Your task to perform on an android device: Go to Amazon Image 0: 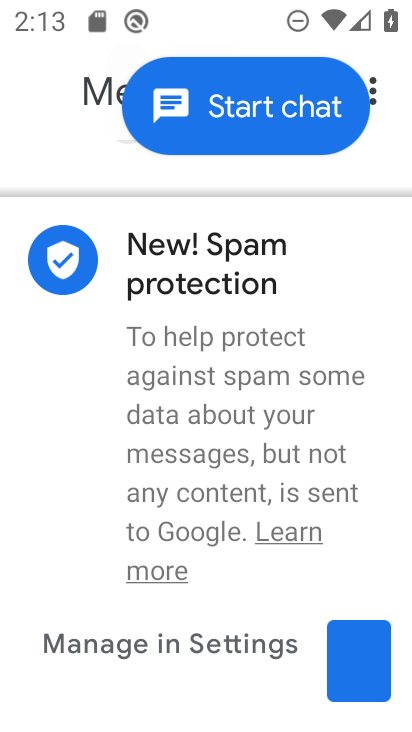
Step 0: press home button
Your task to perform on an android device: Go to Amazon Image 1: 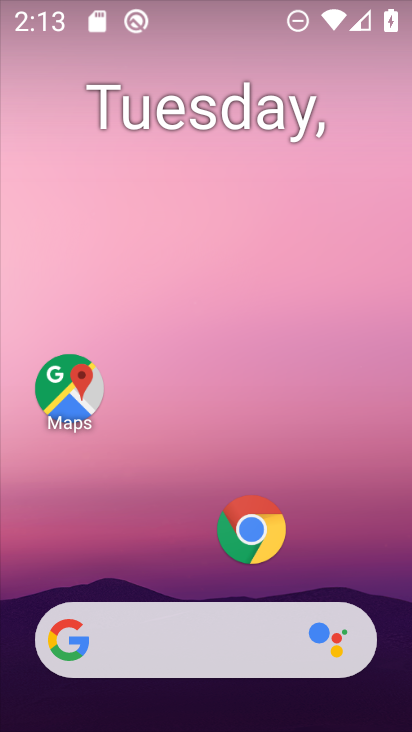
Step 1: drag from (289, 688) to (305, 285)
Your task to perform on an android device: Go to Amazon Image 2: 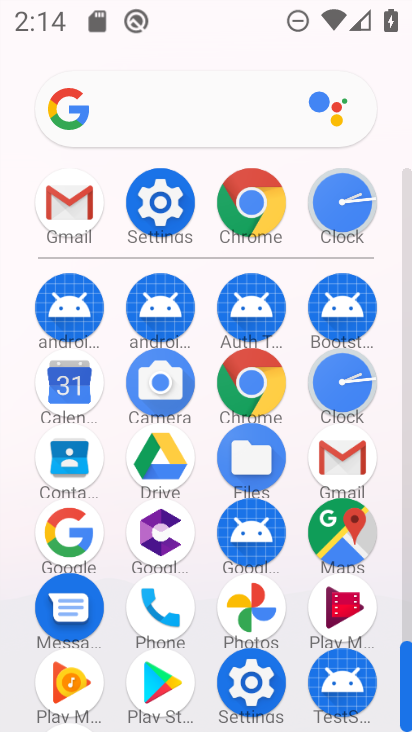
Step 2: click (231, 386)
Your task to perform on an android device: Go to Amazon Image 3: 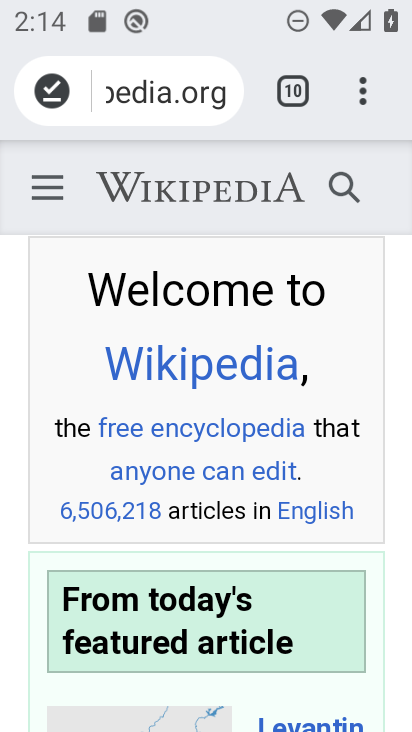
Step 3: click (365, 97)
Your task to perform on an android device: Go to Amazon Image 4: 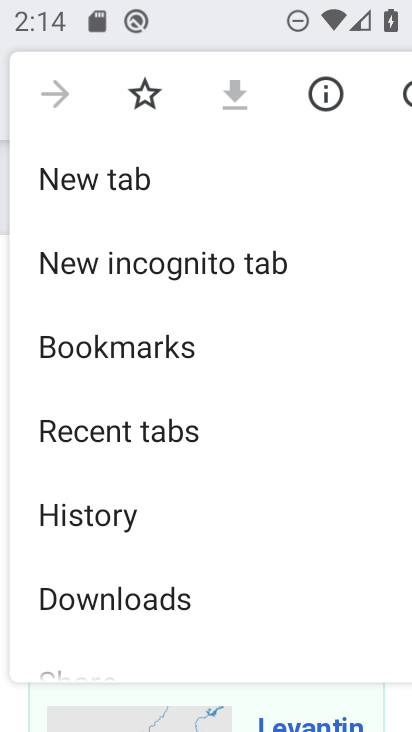
Step 4: click (104, 169)
Your task to perform on an android device: Go to Amazon Image 5: 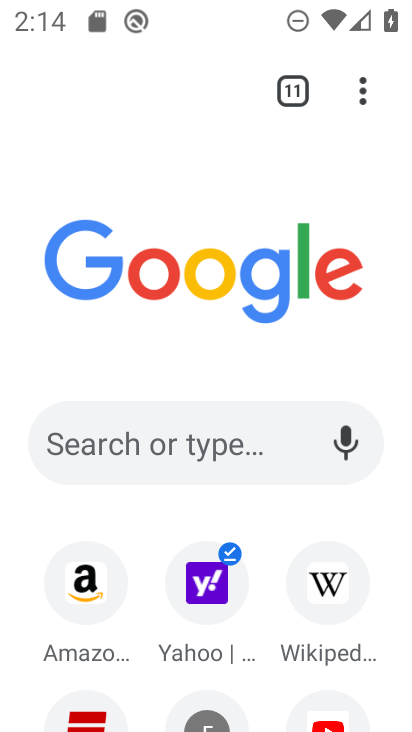
Step 5: click (101, 572)
Your task to perform on an android device: Go to Amazon Image 6: 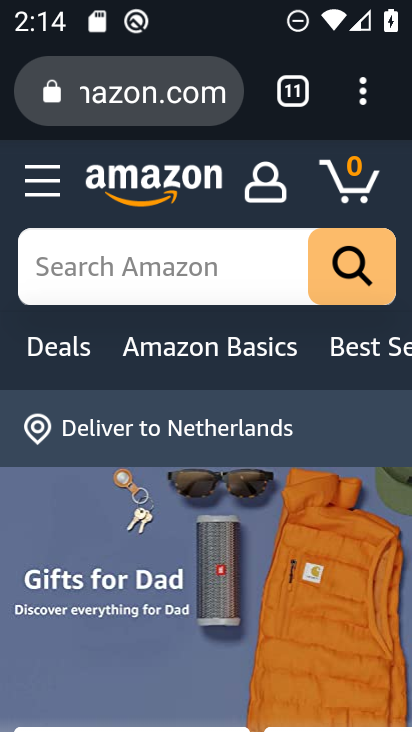
Step 6: task complete